Your task to perform on an android device: turn pop-ups on in chrome Image 0: 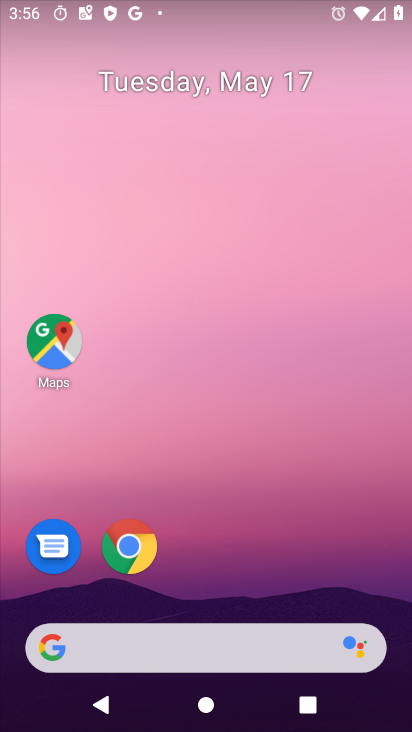
Step 0: click (137, 540)
Your task to perform on an android device: turn pop-ups on in chrome Image 1: 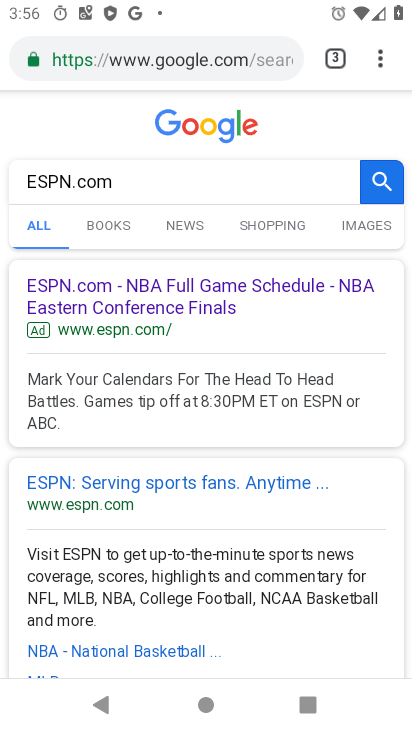
Step 1: click (375, 61)
Your task to perform on an android device: turn pop-ups on in chrome Image 2: 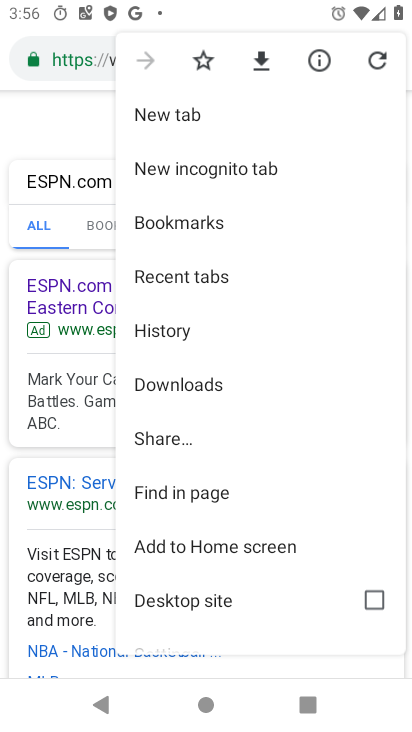
Step 2: drag from (365, 514) to (368, 248)
Your task to perform on an android device: turn pop-ups on in chrome Image 3: 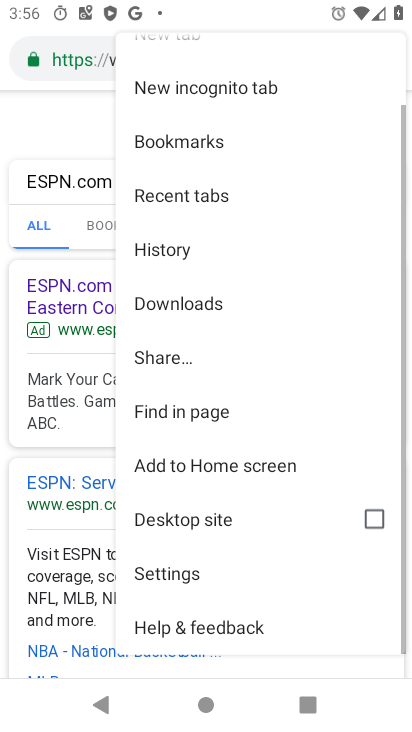
Step 3: click (173, 575)
Your task to perform on an android device: turn pop-ups on in chrome Image 4: 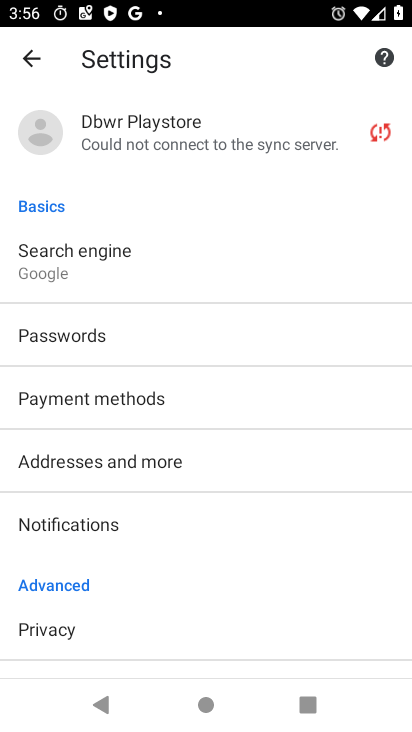
Step 4: drag from (239, 628) to (247, 317)
Your task to perform on an android device: turn pop-ups on in chrome Image 5: 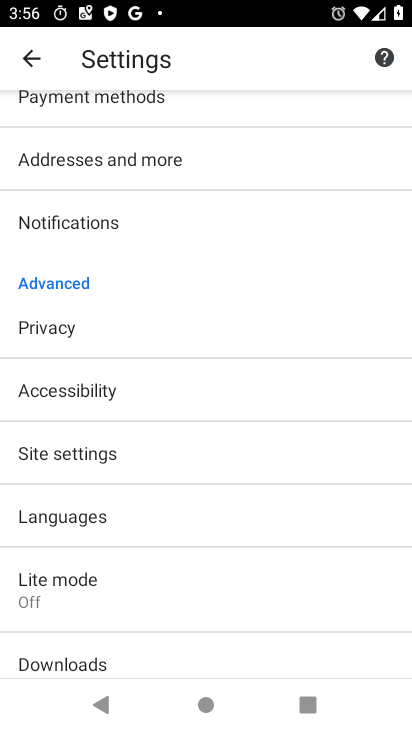
Step 5: drag from (239, 603) to (255, 439)
Your task to perform on an android device: turn pop-ups on in chrome Image 6: 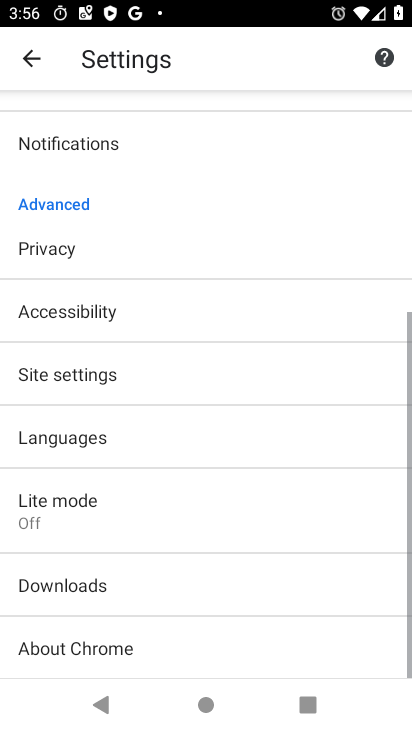
Step 6: click (64, 375)
Your task to perform on an android device: turn pop-ups on in chrome Image 7: 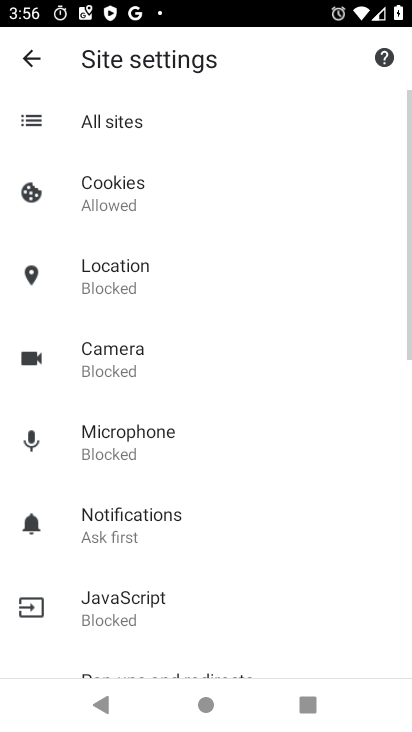
Step 7: drag from (246, 588) to (258, 403)
Your task to perform on an android device: turn pop-ups on in chrome Image 8: 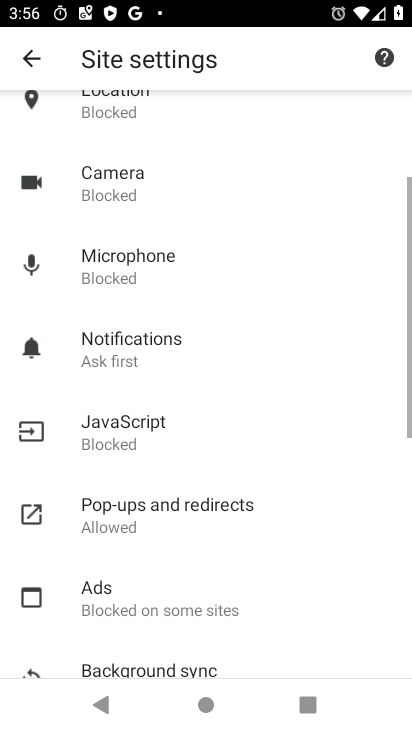
Step 8: click (171, 517)
Your task to perform on an android device: turn pop-ups on in chrome Image 9: 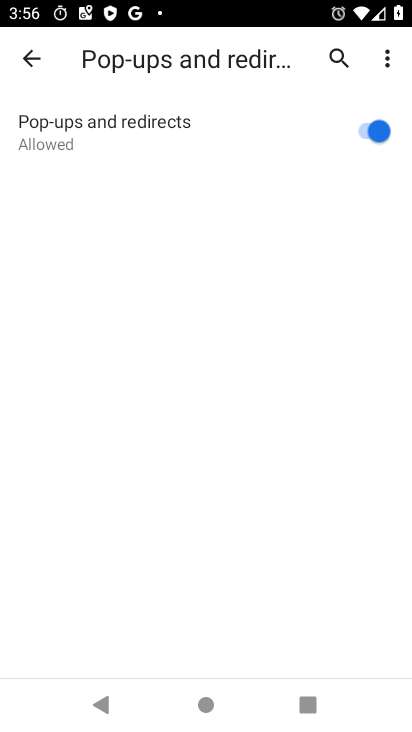
Step 9: task complete